Your task to perform on an android device: Search for logitech g pro on bestbuy.com, select the first entry, add it to the cart, then select checkout. Image 0: 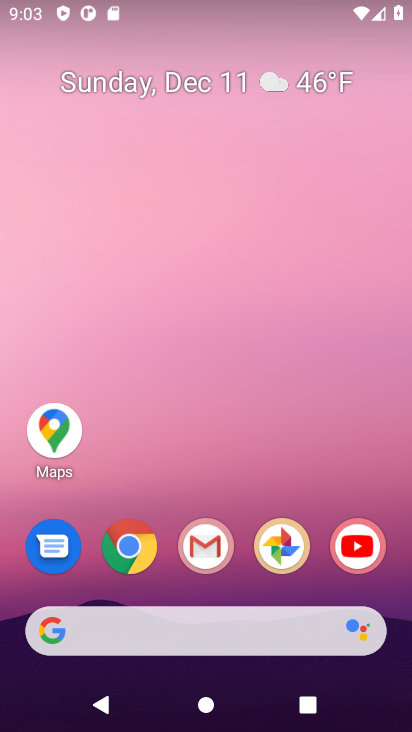
Step 0: click (129, 551)
Your task to perform on an android device: Search for logitech g pro on bestbuy.com, select the first entry, add it to the cart, then select checkout. Image 1: 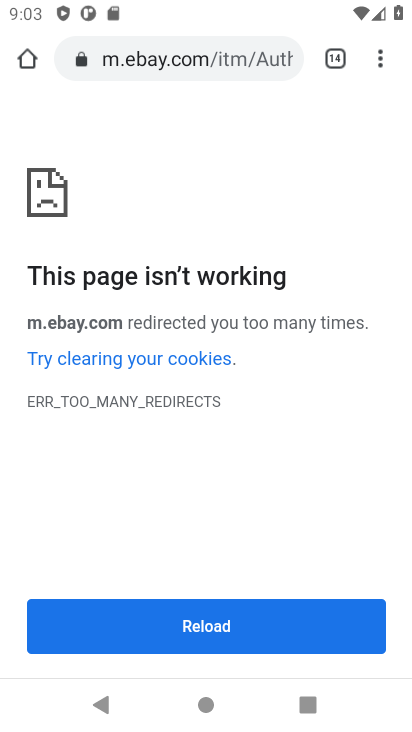
Step 1: click (185, 66)
Your task to perform on an android device: Search for logitech g pro on bestbuy.com, select the first entry, add it to the cart, then select checkout. Image 2: 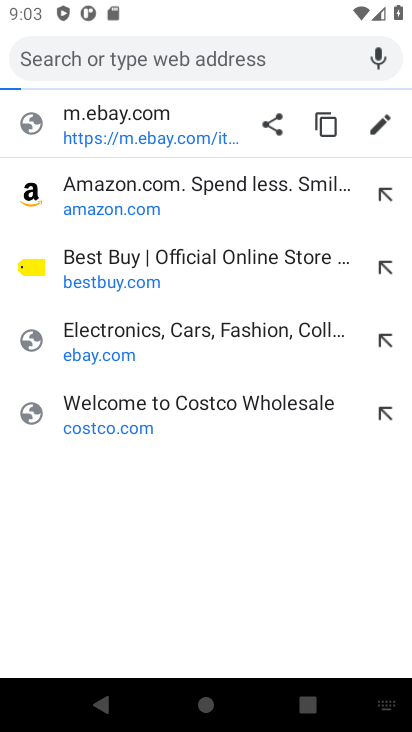
Step 2: click (80, 261)
Your task to perform on an android device: Search for logitech g pro on bestbuy.com, select the first entry, add it to the cart, then select checkout. Image 3: 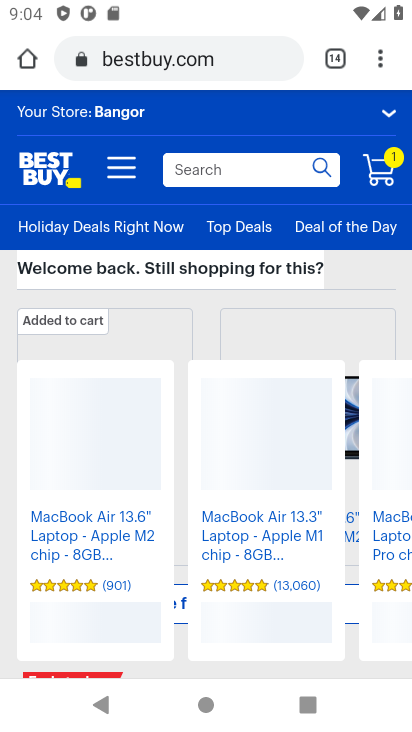
Step 3: click (219, 177)
Your task to perform on an android device: Search for logitech g pro on bestbuy.com, select the first entry, add it to the cart, then select checkout. Image 4: 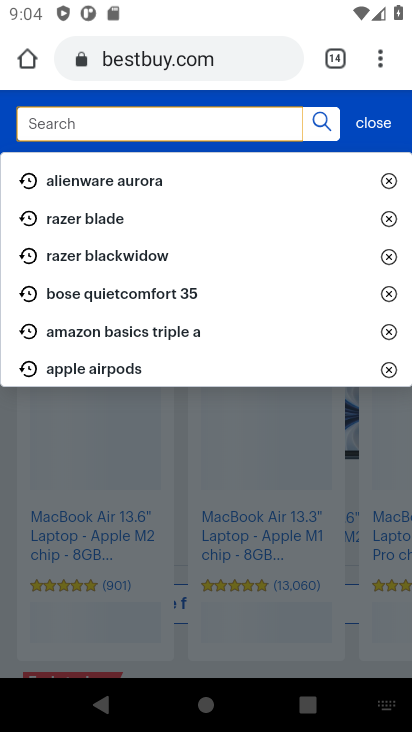
Step 4: type " logitech g pro"
Your task to perform on an android device: Search for logitech g pro on bestbuy.com, select the first entry, add it to the cart, then select checkout. Image 5: 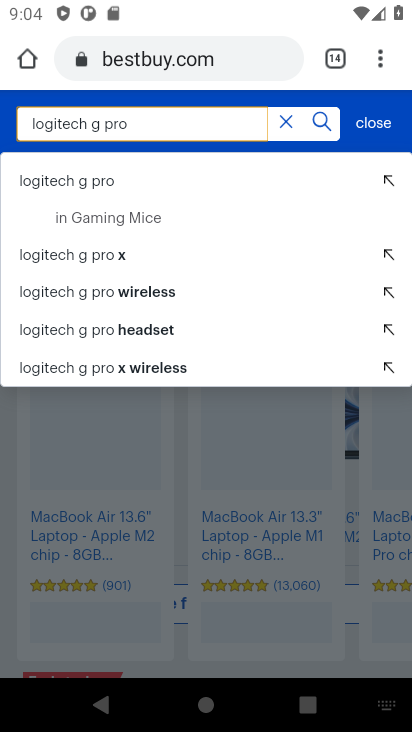
Step 5: click (78, 173)
Your task to perform on an android device: Search for logitech g pro on bestbuy.com, select the first entry, add it to the cart, then select checkout. Image 6: 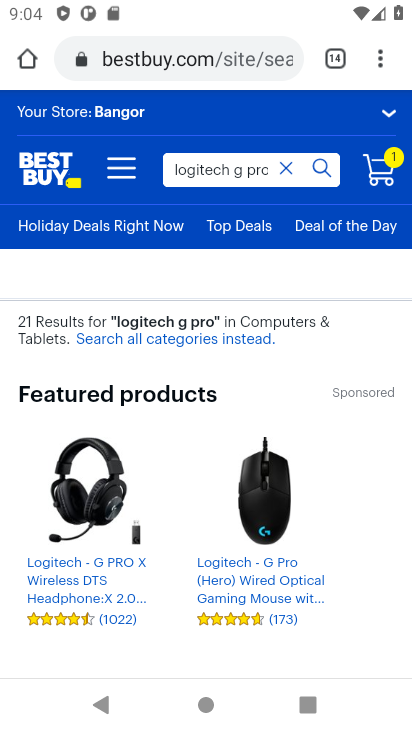
Step 6: drag from (185, 421) to (162, 223)
Your task to perform on an android device: Search for logitech g pro on bestbuy.com, select the first entry, add it to the cart, then select checkout. Image 7: 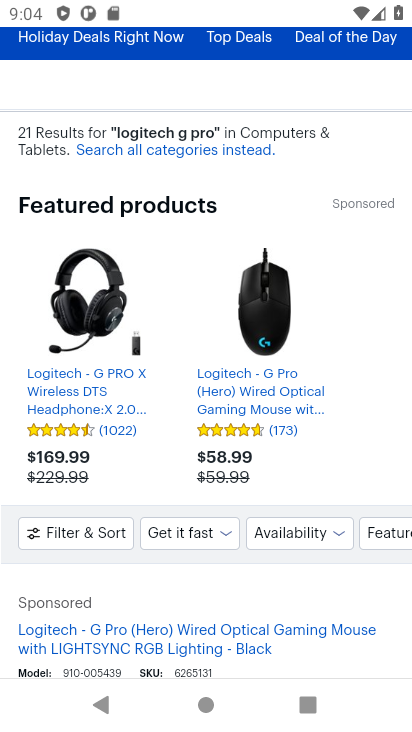
Step 7: drag from (160, 417) to (162, 183)
Your task to perform on an android device: Search for logitech g pro on bestbuy.com, select the first entry, add it to the cart, then select checkout. Image 8: 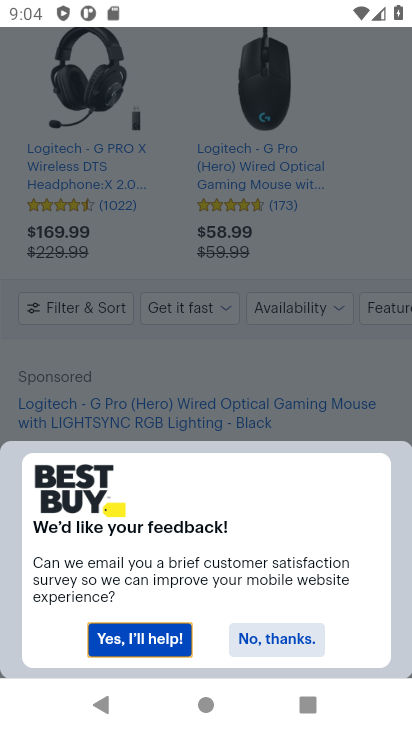
Step 8: click (269, 648)
Your task to perform on an android device: Search for logitech g pro on bestbuy.com, select the first entry, add it to the cart, then select checkout. Image 9: 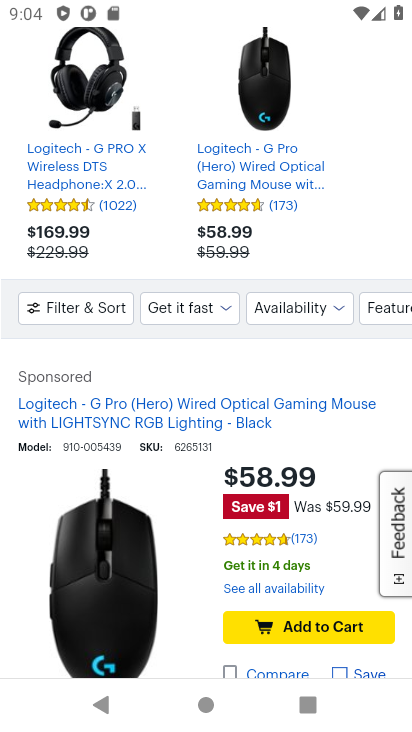
Step 9: drag from (165, 426) to (184, 203)
Your task to perform on an android device: Search for logitech g pro on bestbuy.com, select the first entry, add it to the cart, then select checkout. Image 10: 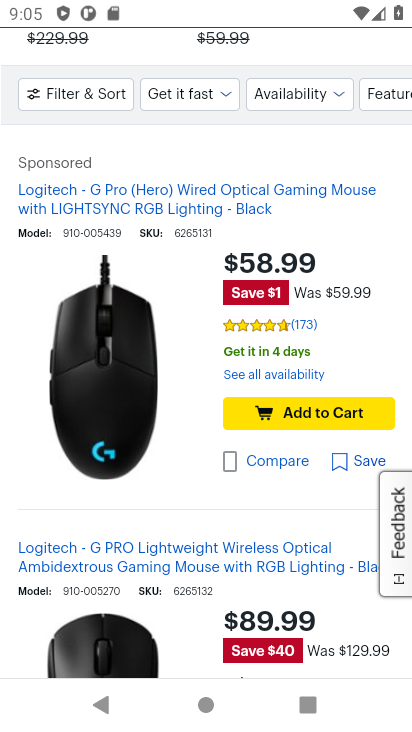
Step 10: click (303, 412)
Your task to perform on an android device: Search for logitech g pro on bestbuy.com, select the first entry, add it to the cart, then select checkout. Image 11: 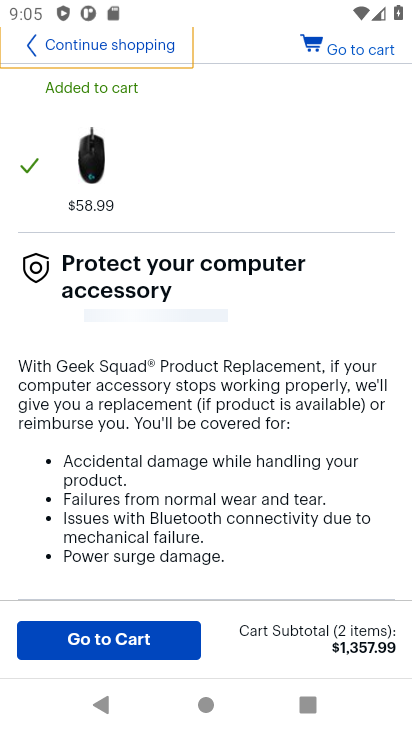
Step 11: click (356, 54)
Your task to perform on an android device: Search for logitech g pro on bestbuy.com, select the first entry, add it to the cart, then select checkout. Image 12: 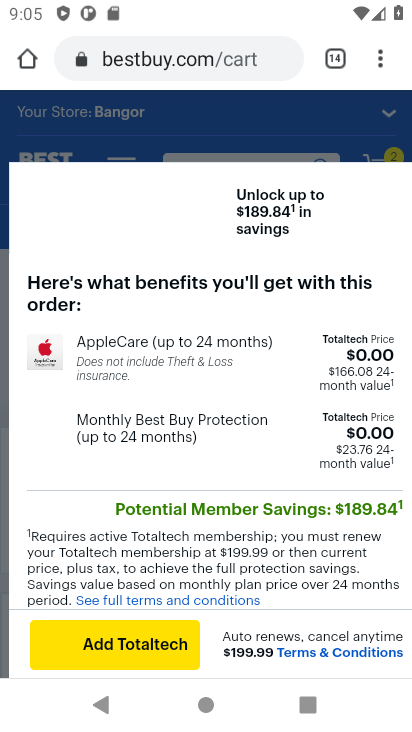
Step 12: click (211, 525)
Your task to perform on an android device: Search for logitech g pro on bestbuy.com, select the first entry, add it to the cart, then select checkout. Image 13: 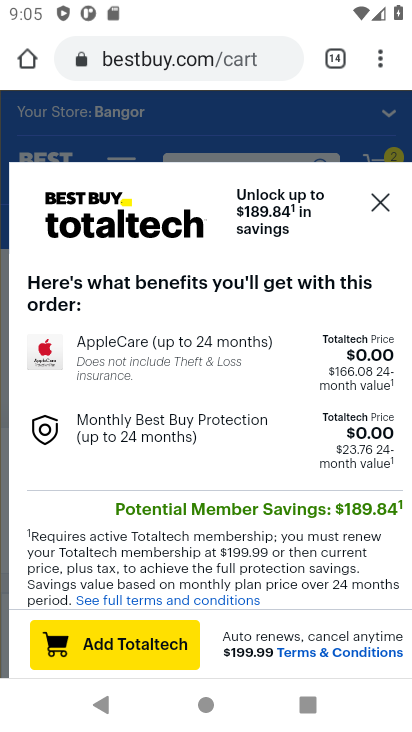
Step 13: click (383, 199)
Your task to perform on an android device: Search for logitech g pro on bestbuy.com, select the first entry, add it to the cart, then select checkout. Image 14: 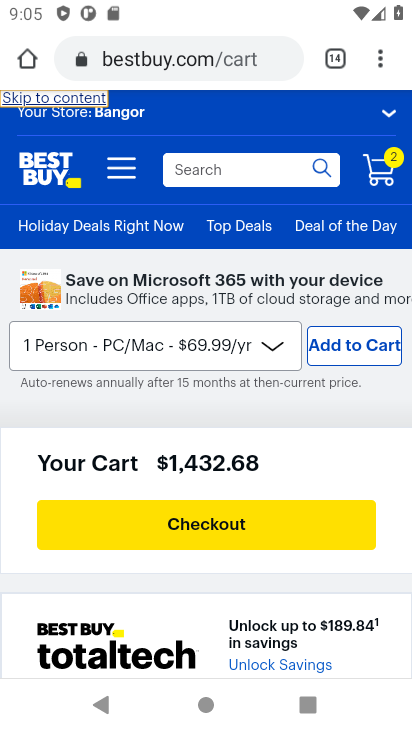
Step 14: click (205, 517)
Your task to perform on an android device: Search for logitech g pro on bestbuy.com, select the first entry, add it to the cart, then select checkout. Image 15: 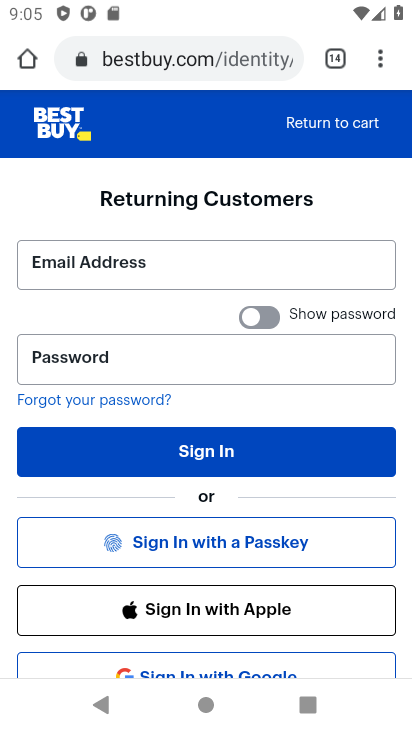
Step 15: task complete